Your task to perform on an android device: make emails show in primary in the gmail app Image 0: 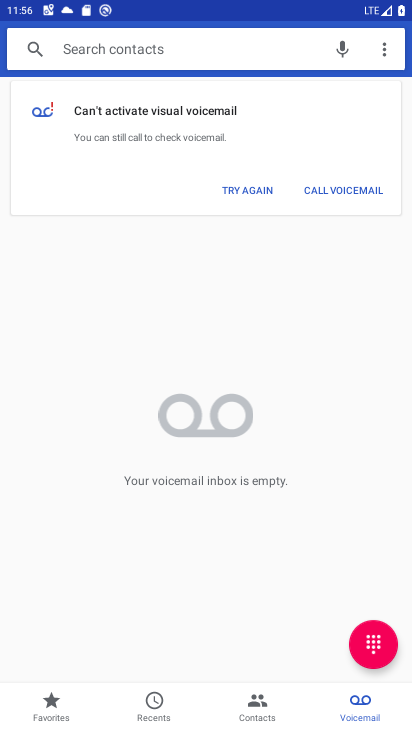
Step 0: press home button
Your task to perform on an android device: make emails show in primary in the gmail app Image 1: 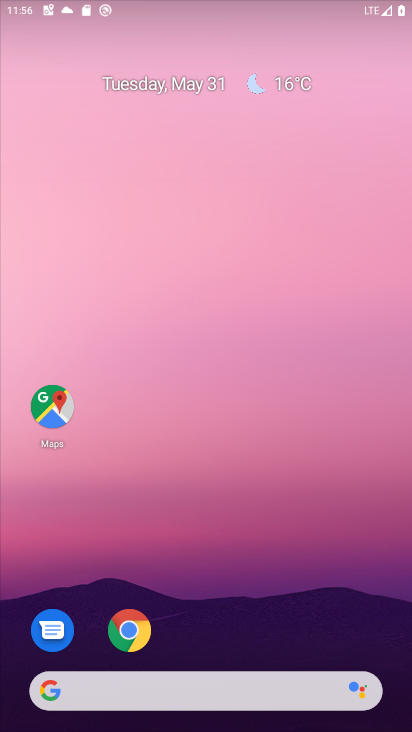
Step 1: drag from (262, 650) to (294, 108)
Your task to perform on an android device: make emails show in primary in the gmail app Image 2: 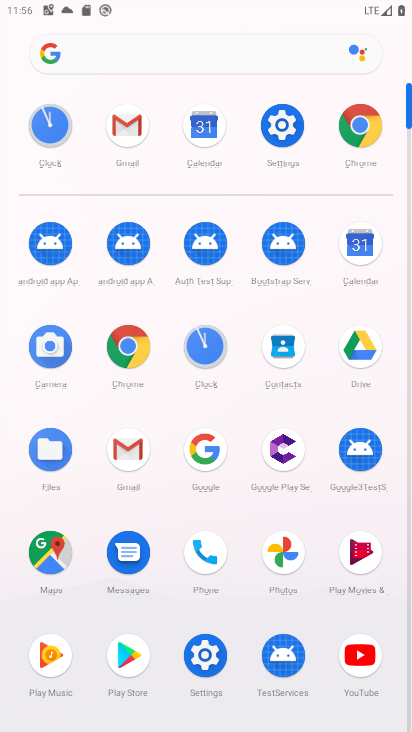
Step 2: click (131, 123)
Your task to perform on an android device: make emails show in primary in the gmail app Image 3: 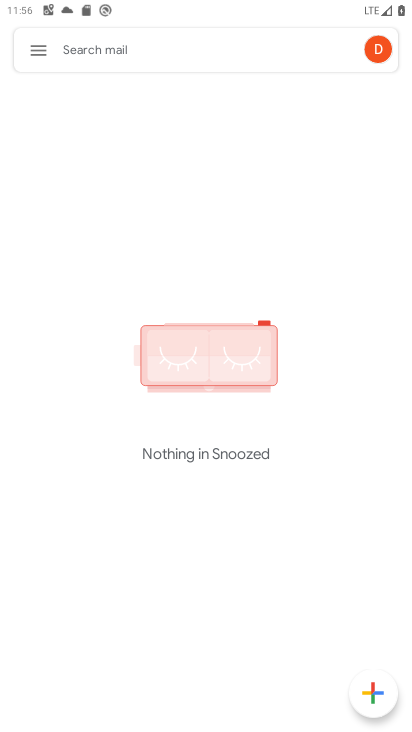
Step 3: click (39, 54)
Your task to perform on an android device: make emails show in primary in the gmail app Image 4: 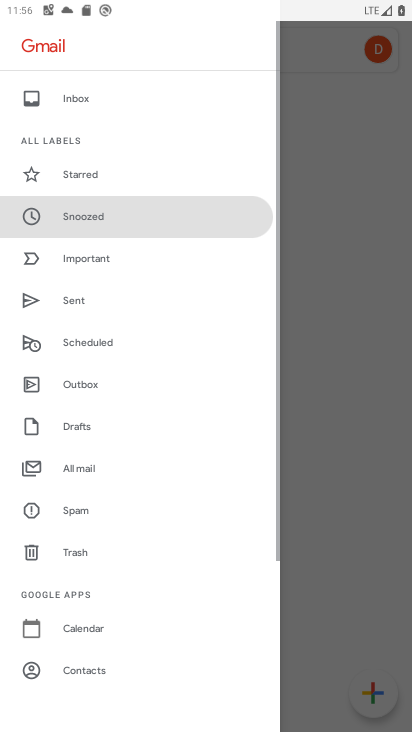
Step 4: drag from (130, 590) to (195, 0)
Your task to perform on an android device: make emails show in primary in the gmail app Image 5: 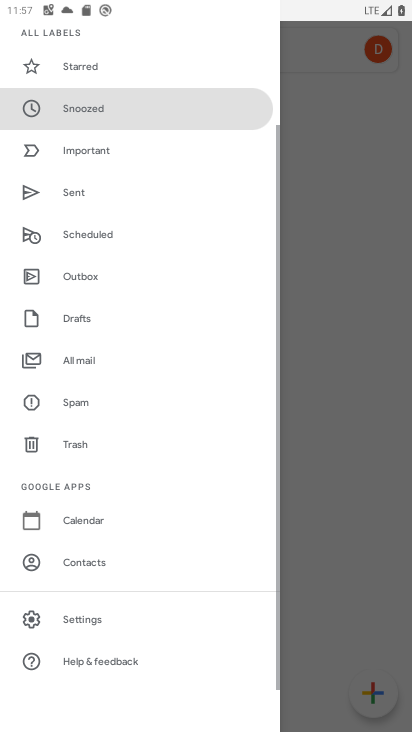
Step 5: click (76, 622)
Your task to perform on an android device: make emails show in primary in the gmail app Image 6: 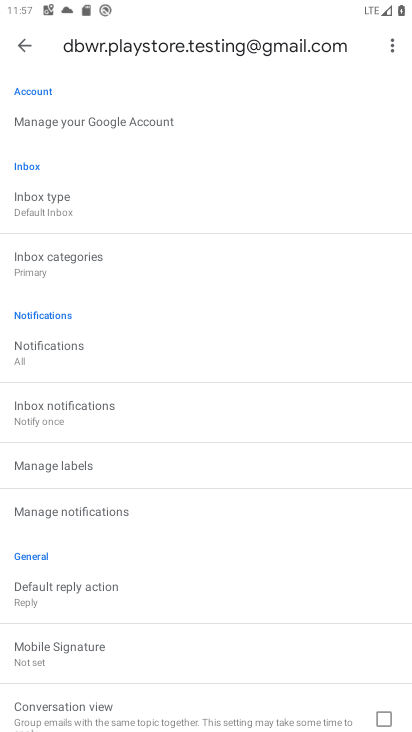
Step 6: click (46, 200)
Your task to perform on an android device: make emails show in primary in the gmail app Image 7: 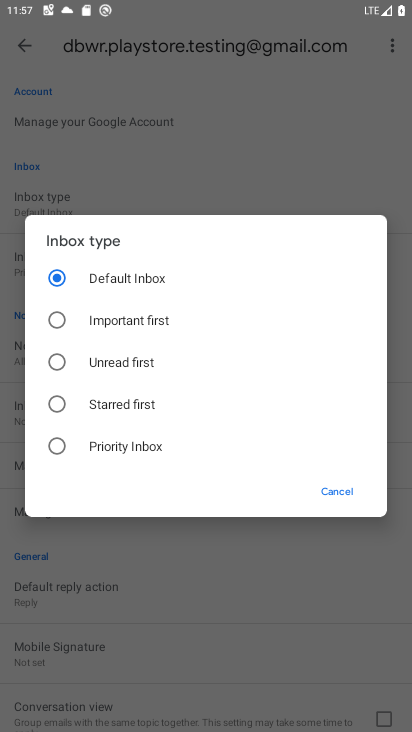
Step 7: click (382, 117)
Your task to perform on an android device: make emails show in primary in the gmail app Image 8: 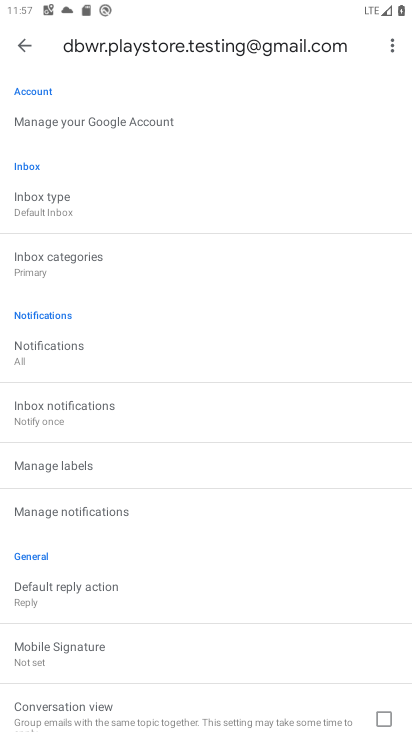
Step 8: click (74, 265)
Your task to perform on an android device: make emails show in primary in the gmail app Image 9: 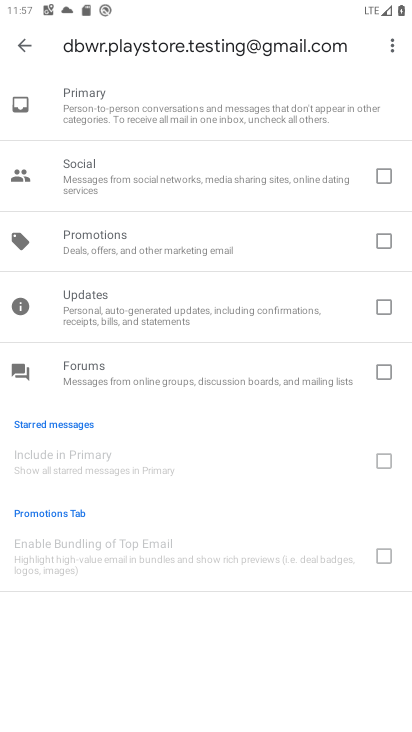
Step 9: task complete